Your task to perform on an android device: toggle notifications settings in the gmail app Image 0: 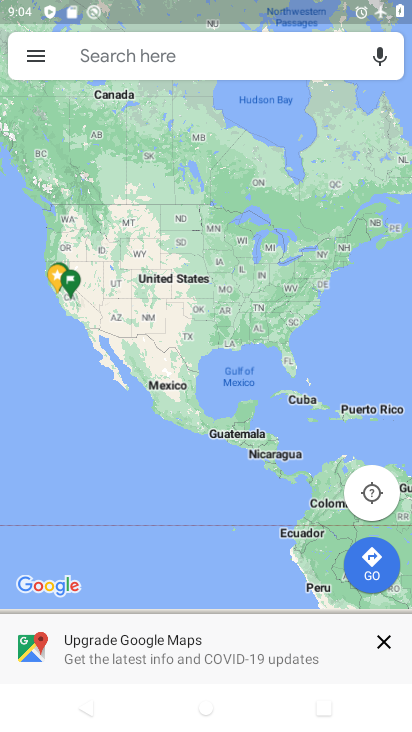
Step 0: press home button
Your task to perform on an android device: toggle notifications settings in the gmail app Image 1: 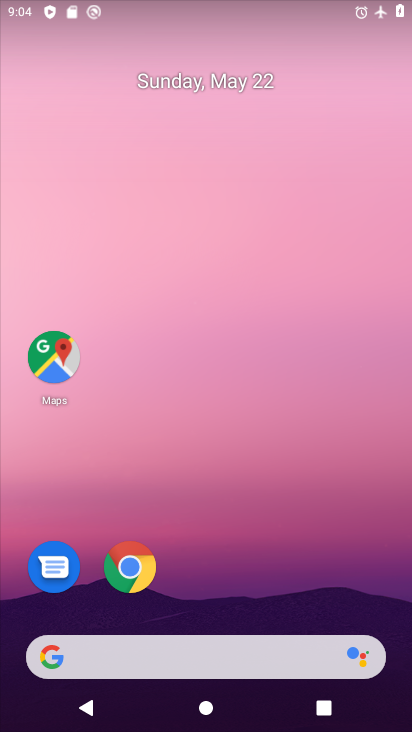
Step 1: drag from (245, 577) to (309, 23)
Your task to perform on an android device: toggle notifications settings in the gmail app Image 2: 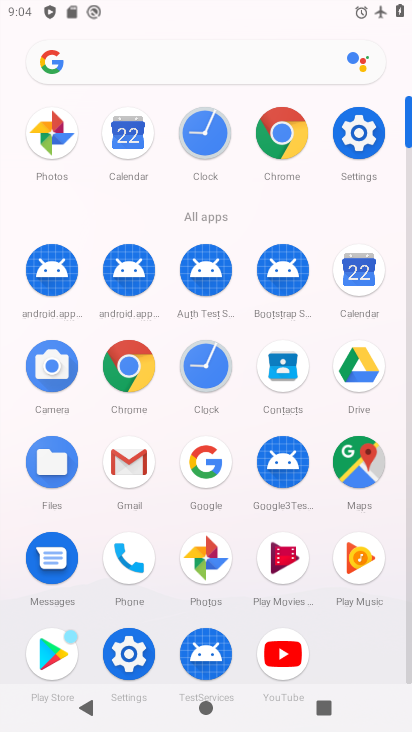
Step 2: click (138, 467)
Your task to perform on an android device: toggle notifications settings in the gmail app Image 3: 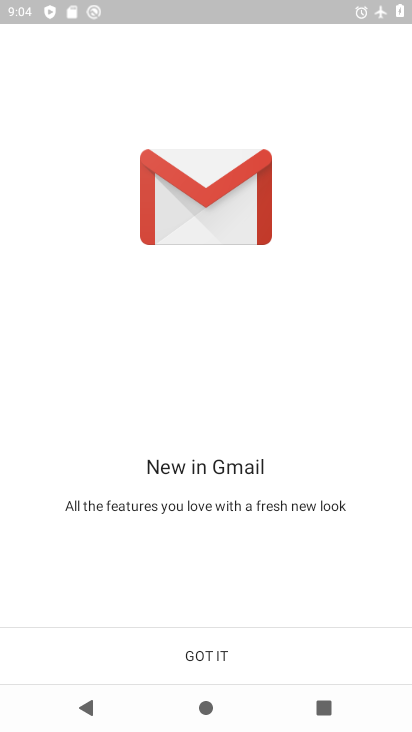
Step 3: click (192, 655)
Your task to perform on an android device: toggle notifications settings in the gmail app Image 4: 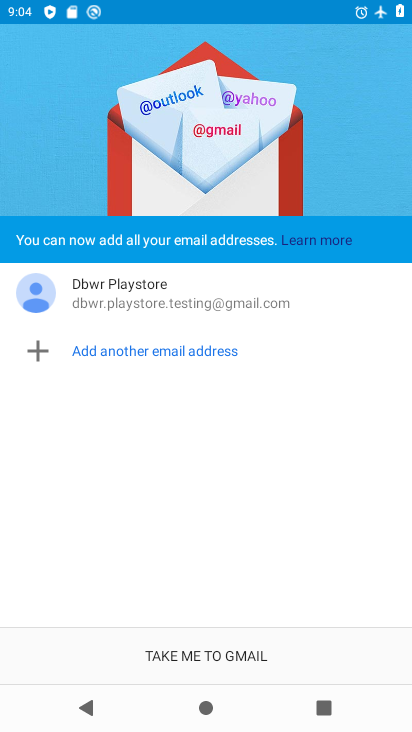
Step 4: click (190, 655)
Your task to perform on an android device: toggle notifications settings in the gmail app Image 5: 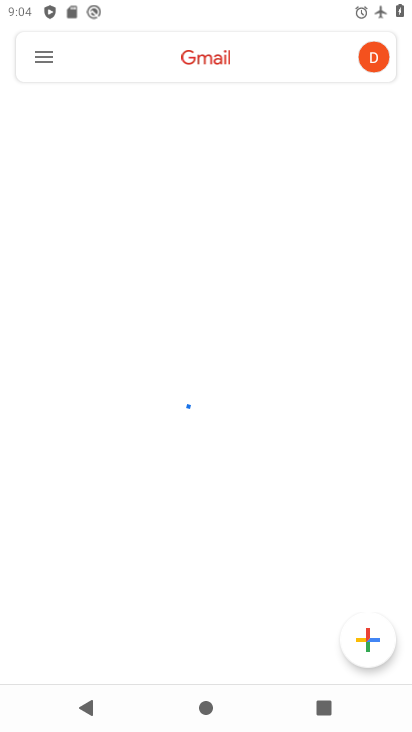
Step 5: click (50, 50)
Your task to perform on an android device: toggle notifications settings in the gmail app Image 6: 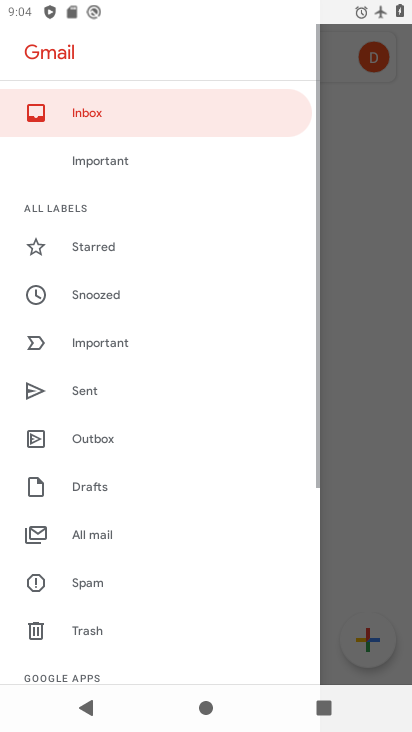
Step 6: click (101, 259)
Your task to perform on an android device: toggle notifications settings in the gmail app Image 7: 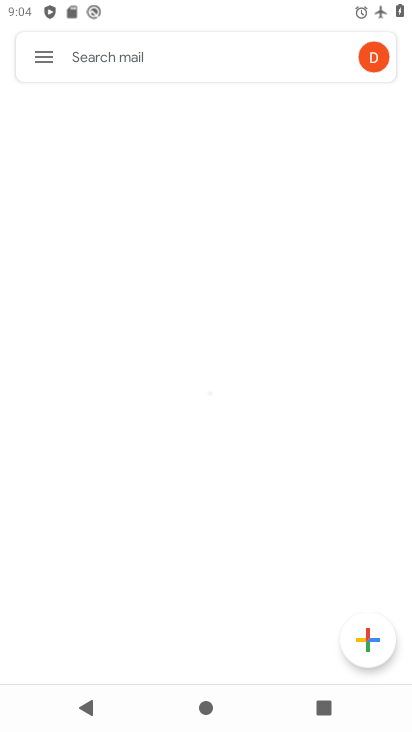
Step 7: click (32, 49)
Your task to perform on an android device: toggle notifications settings in the gmail app Image 8: 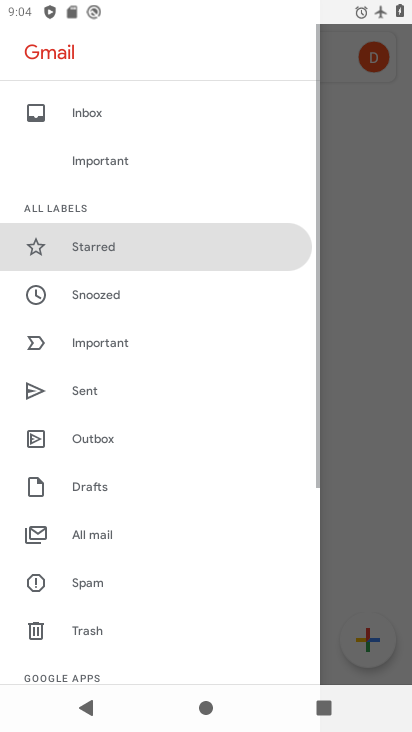
Step 8: drag from (128, 567) to (189, 66)
Your task to perform on an android device: toggle notifications settings in the gmail app Image 9: 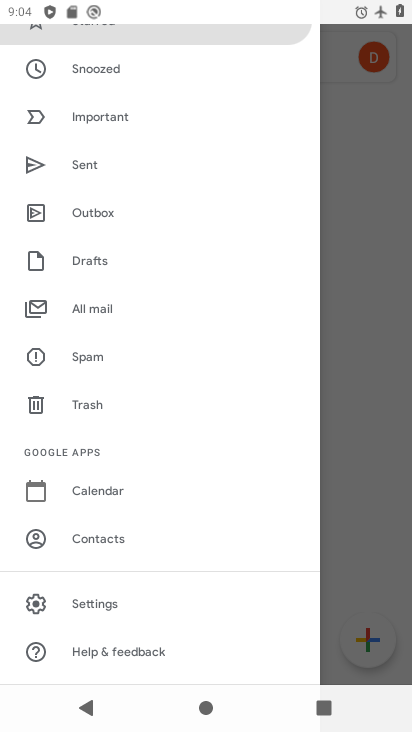
Step 9: click (95, 609)
Your task to perform on an android device: toggle notifications settings in the gmail app Image 10: 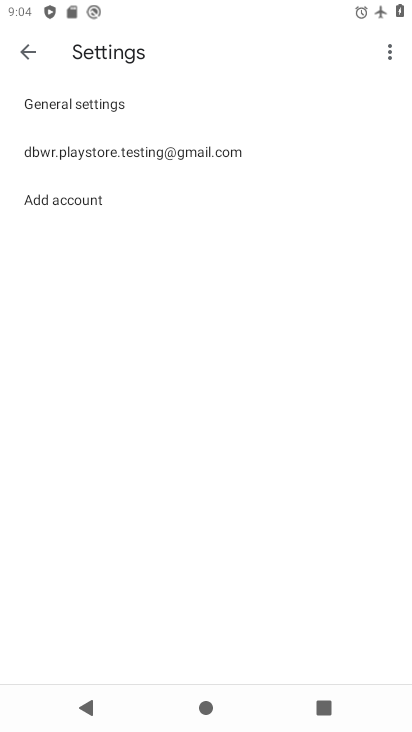
Step 10: click (81, 107)
Your task to perform on an android device: toggle notifications settings in the gmail app Image 11: 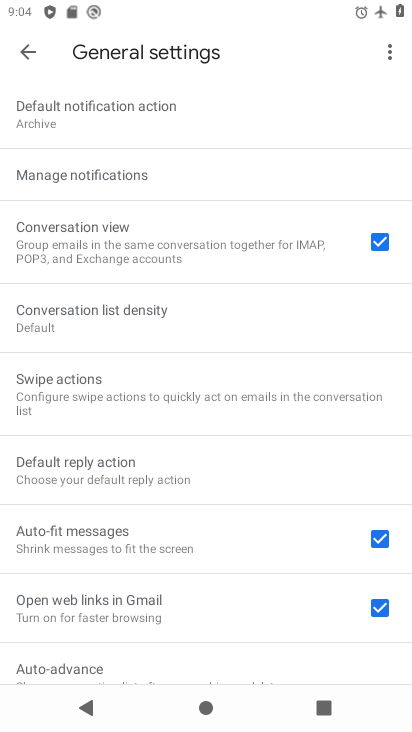
Step 11: click (99, 183)
Your task to perform on an android device: toggle notifications settings in the gmail app Image 12: 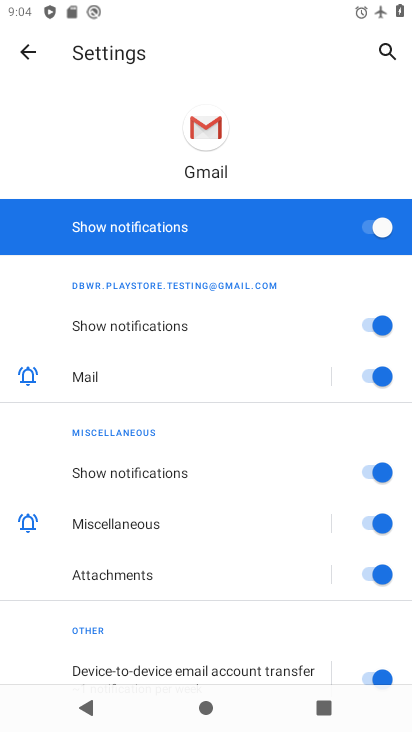
Step 12: click (361, 224)
Your task to perform on an android device: toggle notifications settings in the gmail app Image 13: 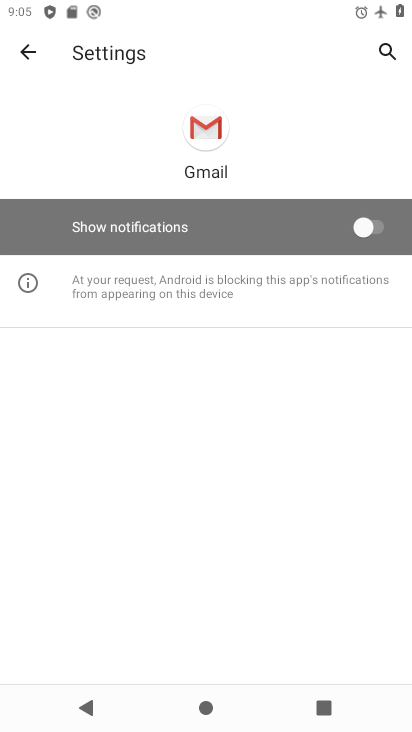
Step 13: task complete